Your task to perform on an android device: Open Chrome and go to the settings page Image 0: 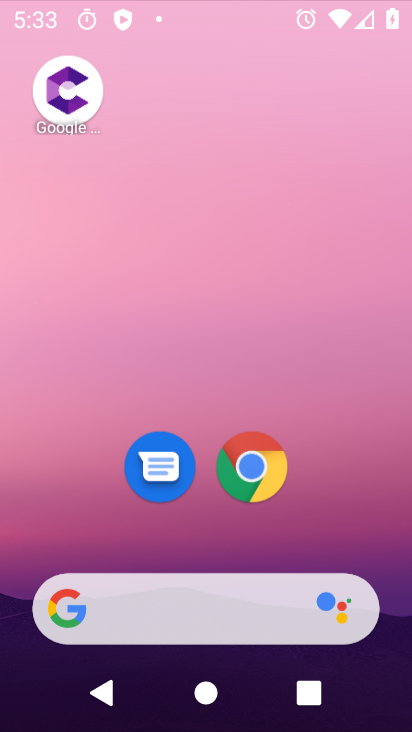
Step 0: press home button
Your task to perform on an android device: Open Chrome and go to the settings page Image 1: 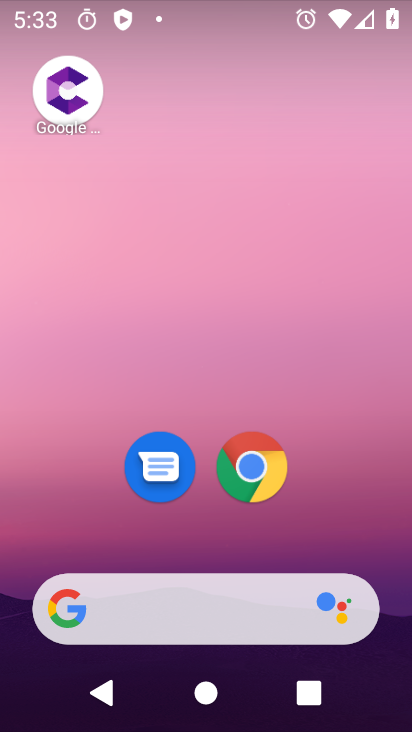
Step 1: drag from (258, 579) to (316, 19)
Your task to perform on an android device: Open Chrome and go to the settings page Image 2: 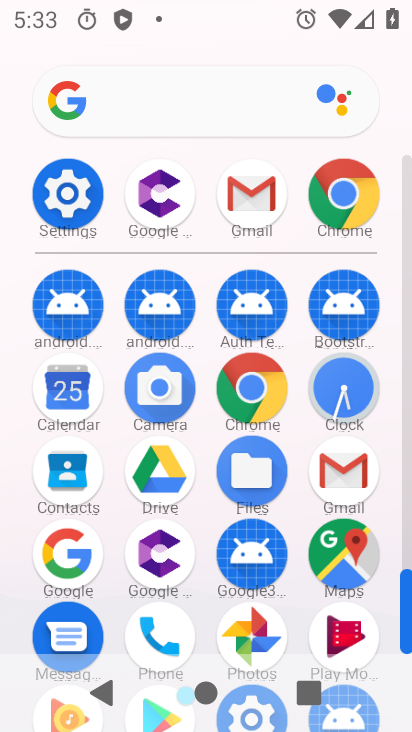
Step 2: click (249, 402)
Your task to perform on an android device: Open Chrome and go to the settings page Image 3: 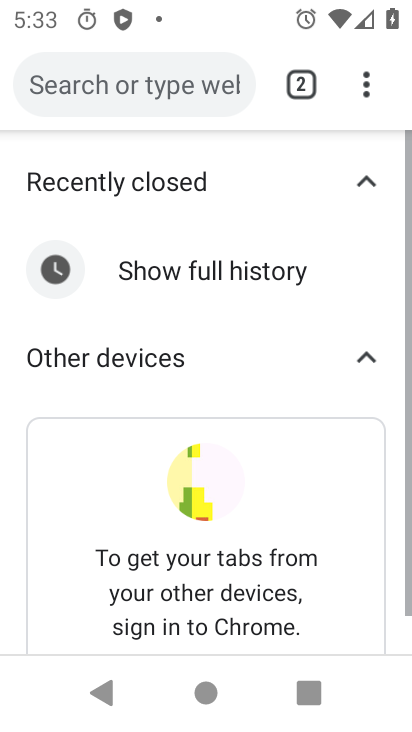
Step 3: task complete